Your task to perform on an android device: Check the news Image 0: 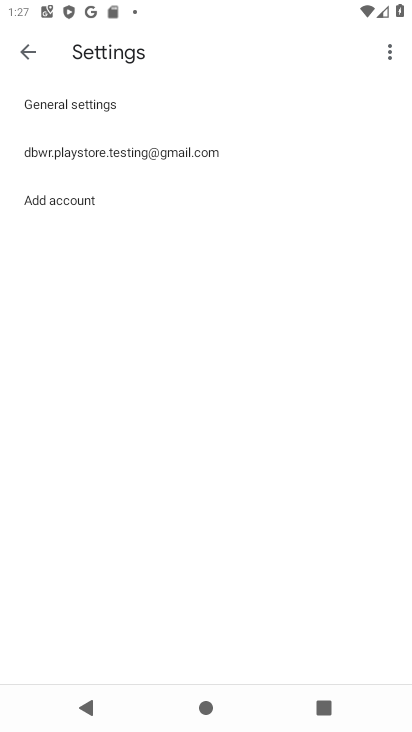
Step 0: press home button
Your task to perform on an android device: Check the news Image 1: 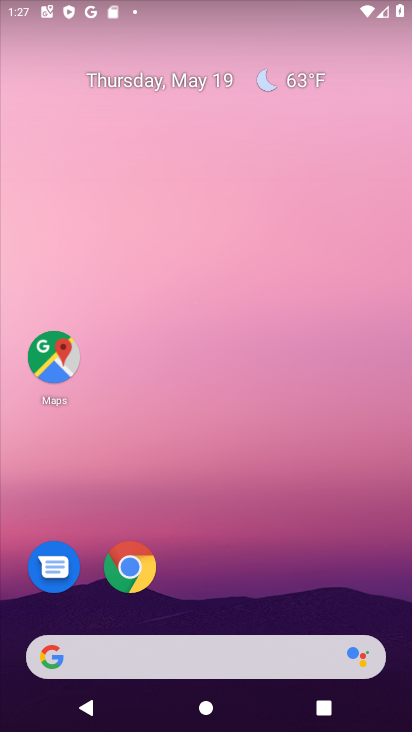
Step 1: drag from (332, 590) to (312, 136)
Your task to perform on an android device: Check the news Image 2: 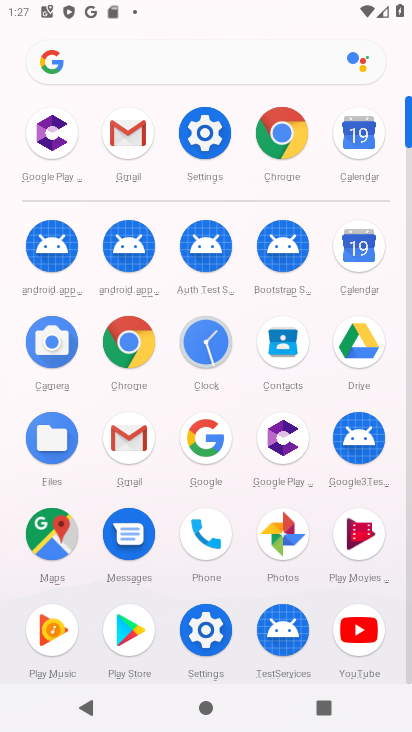
Step 2: click (294, 143)
Your task to perform on an android device: Check the news Image 3: 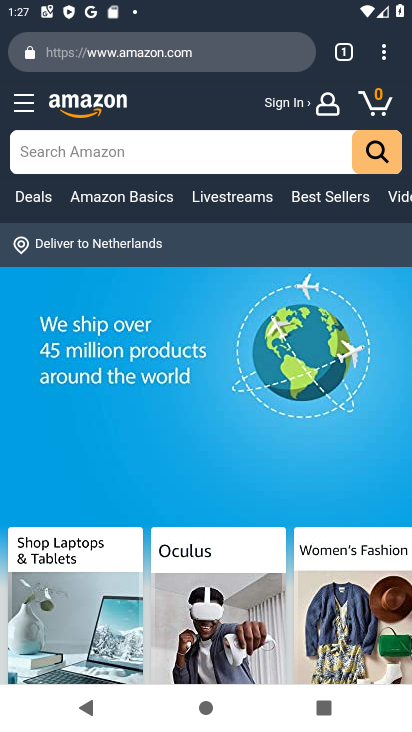
Step 3: task complete